Your task to perform on an android device: refresh tabs in the chrome app Image 0: 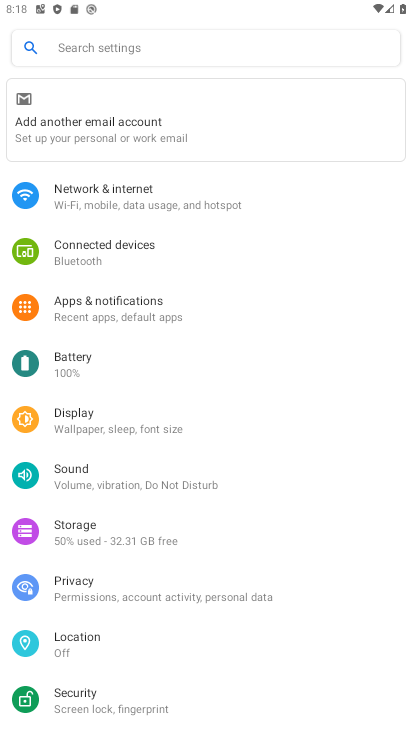
Step 0: press home button
Your task to perform on an android device: refresh tabs in the chrome app Image 1: 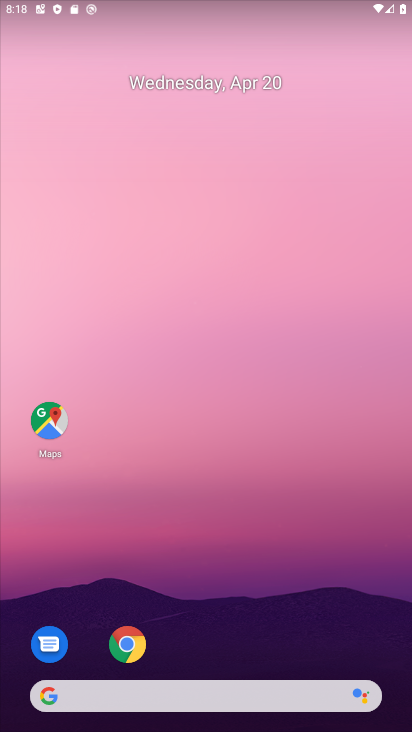
Step 1: drag from (300, 628) to (298, 287)
Your task to perform on an android device: refresh tabs in the chrome app Image 2: 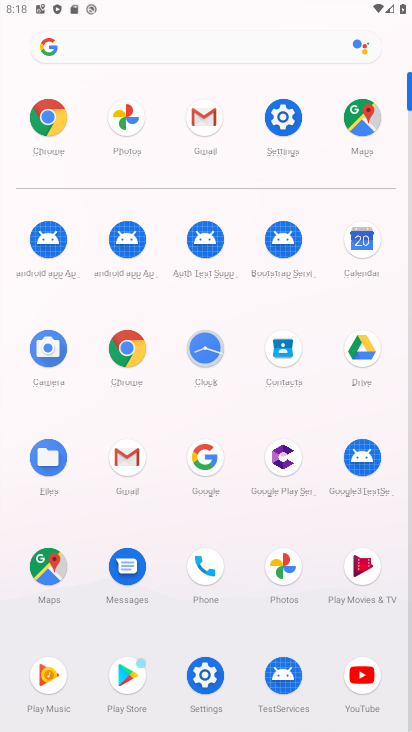
Step 2: click (116, 346)
Your task to perform on an android device: refresh tabs in the chrome app Image 3: 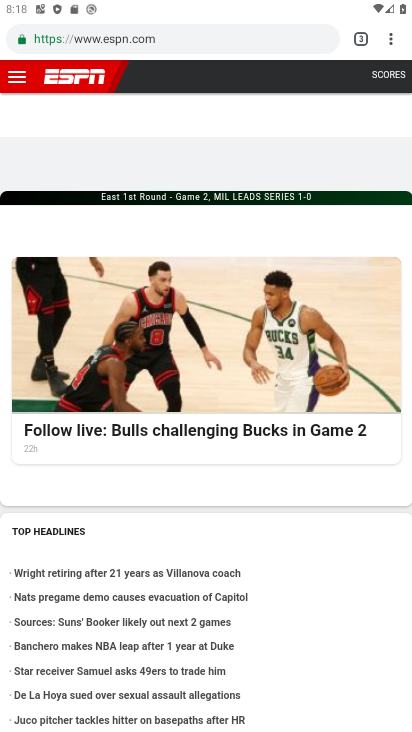
Step 3: press back button
Your task to perform on an android device: refresh tabs in the chrome app Image 4: 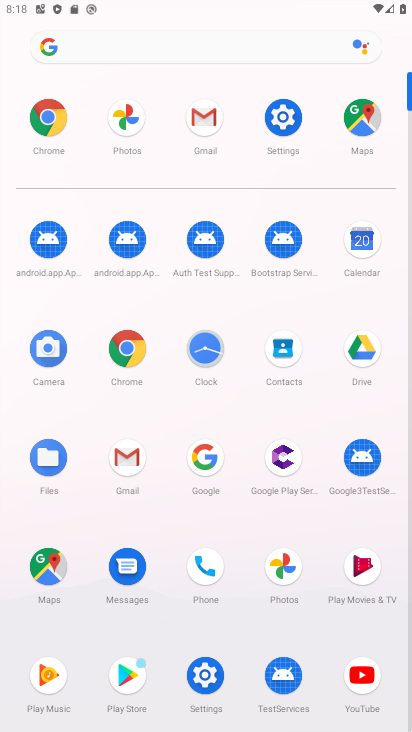
Step 4: click (123, 345)
Your task to perform on an android device: refresh tabs in the chrome app Image 5: 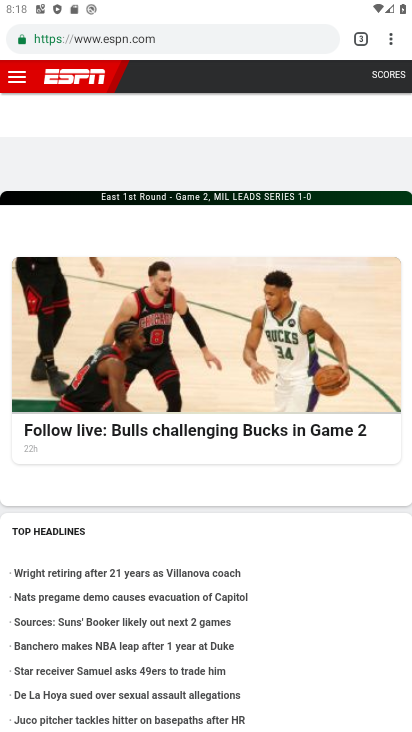
Step 5: click (389, 36)
Your task to perform on an android device: refresh tabs in the chrome app Image 6: 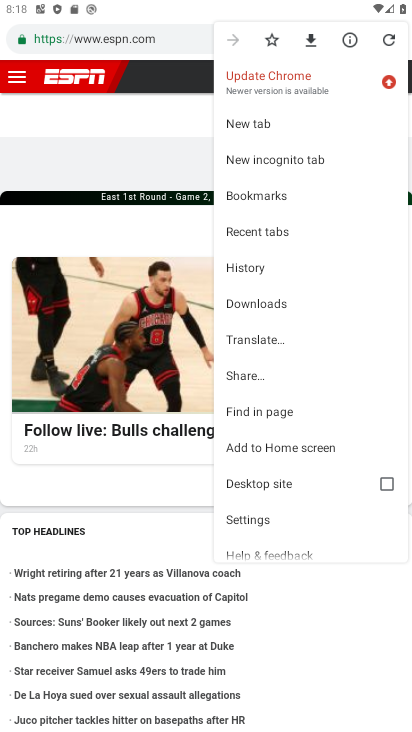
Step 6: click (381, 40)
Your task to perform on an android device: refresh tabs in the chrome app Image 7: 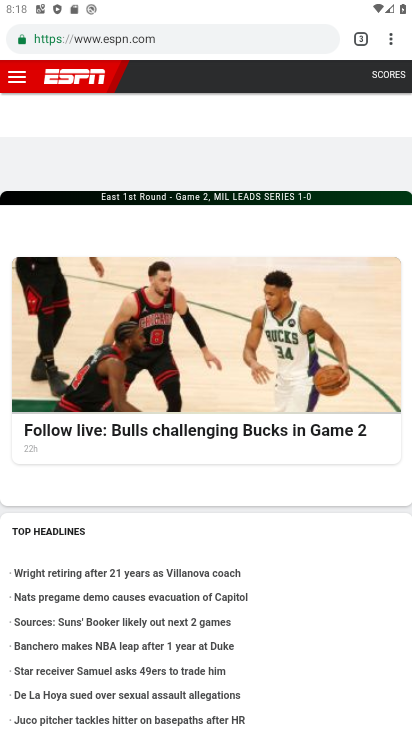
Step 7: task complete